Your task to perform on an android device: Open Yahoo.com Image 0: 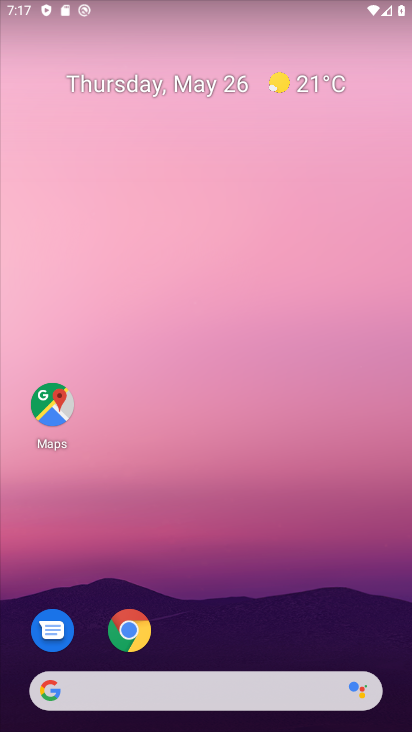
Step 0: click (129, 629)
Your task to perform on an android device: Open Yahoo.com Image 1: 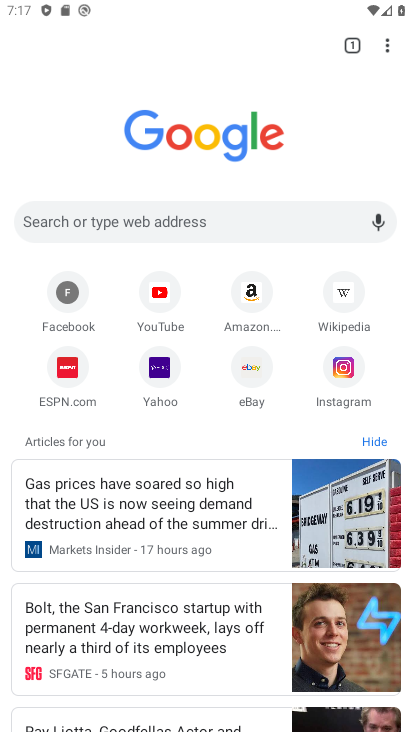
Step 1: click (147, 218)
Your task to perform on an android device: Open Yahoo.com Image 2: 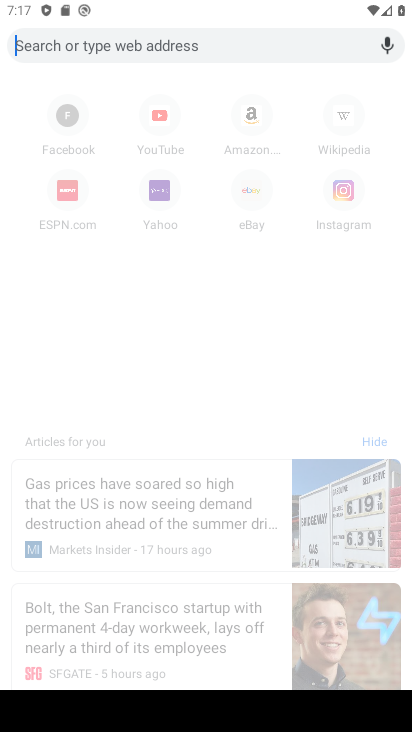
Step 2: type "Yahoo.com"
Your task to perform on an android device: Open Yahoo.com Image 3: 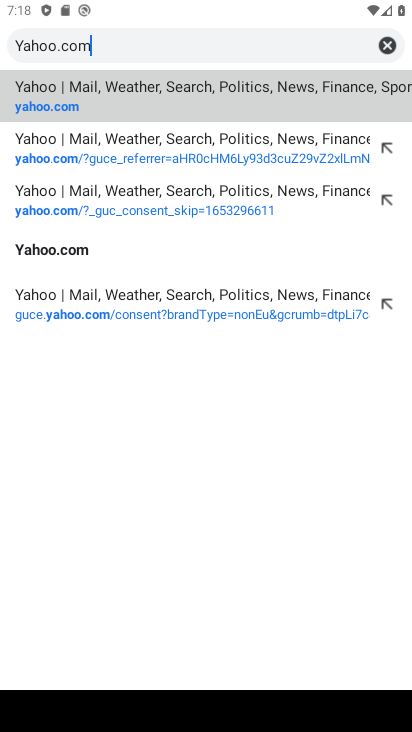
Step 3: click (69, 254)
Your task to perform on an android device: Open Yahoo.com Image 4: 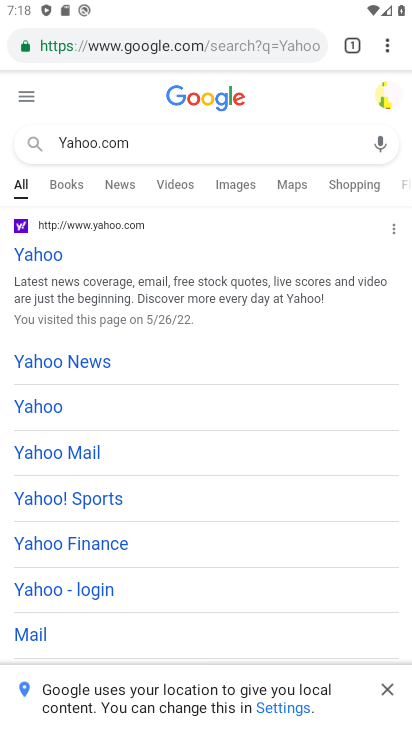
Step 4: click (55, 262)
Your task to perform on an android device: Open Yahoo.com Image 5: 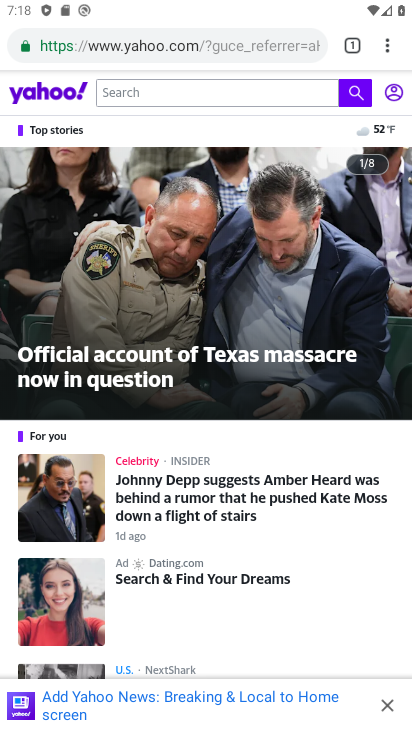
Step 5: task complete